Your task to perform on an android device: Go to internet settings Image 0: 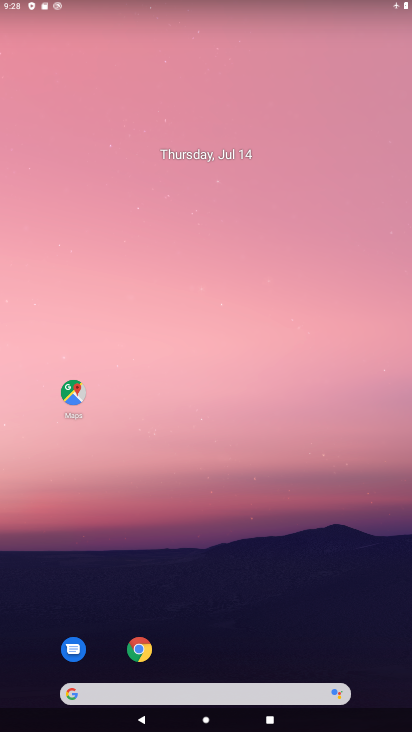
Step 0: drag from (170, 617) to (184, 73)
Your task to perform on an android device: Go to internet settings Image 1: 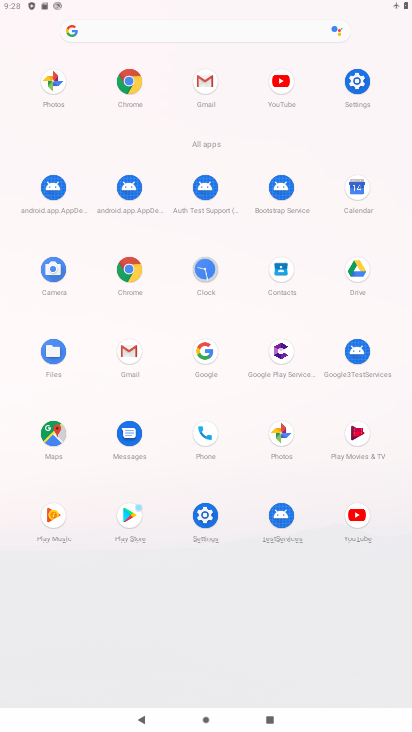
Step 1: click (359, 85)
Your task to perform on an android device: Go to internet settings Image 2: 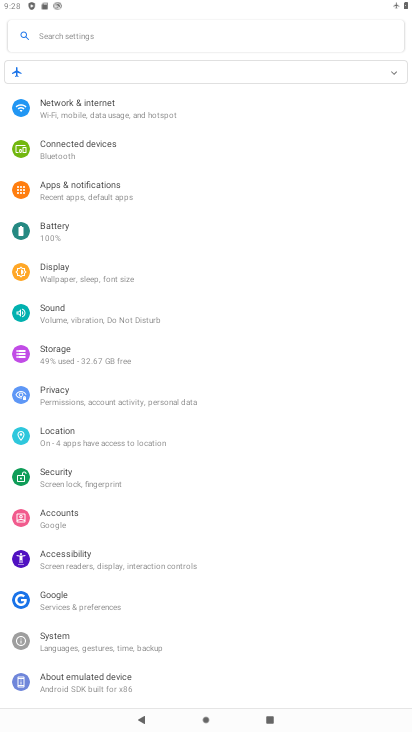
Step 2: click (96, 105)
Your task to perform on an android device: Go to internet settings Image 3: 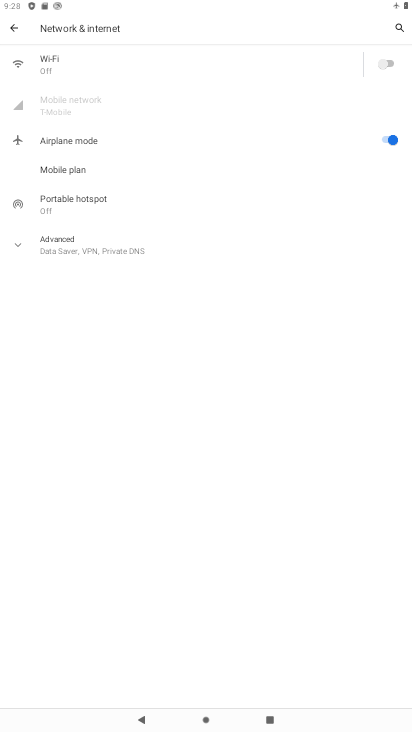
Step 3: task complete